Your task to perform on an android device: open app "McDonald's" Image 0: 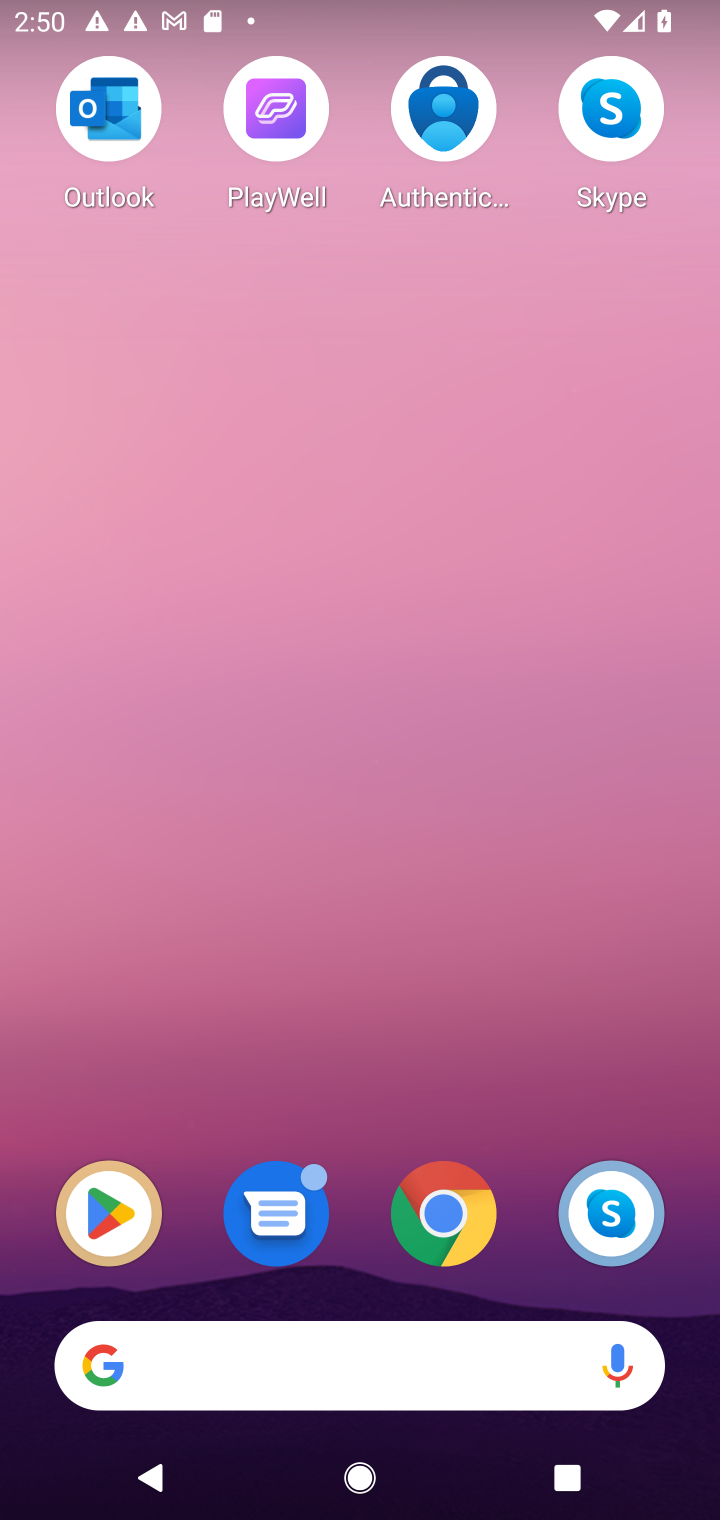
Step 0: drag from (508, 1079) to (500, 176)
Your task to perform on an android device: open app "McDonald's" Image 1: 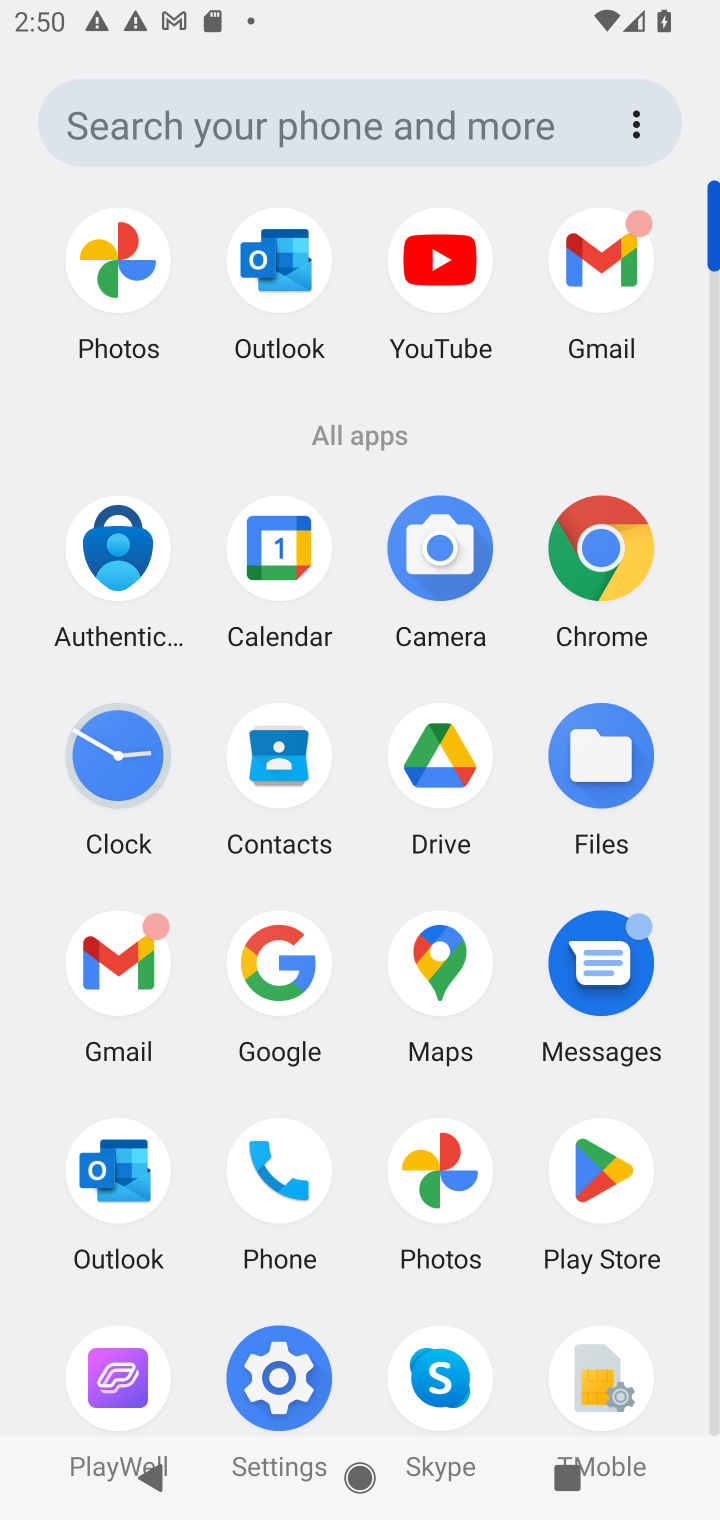
Step 1: click (594, 1156)
Your task to perform on an android device: open app "McDonald's" Image 2: 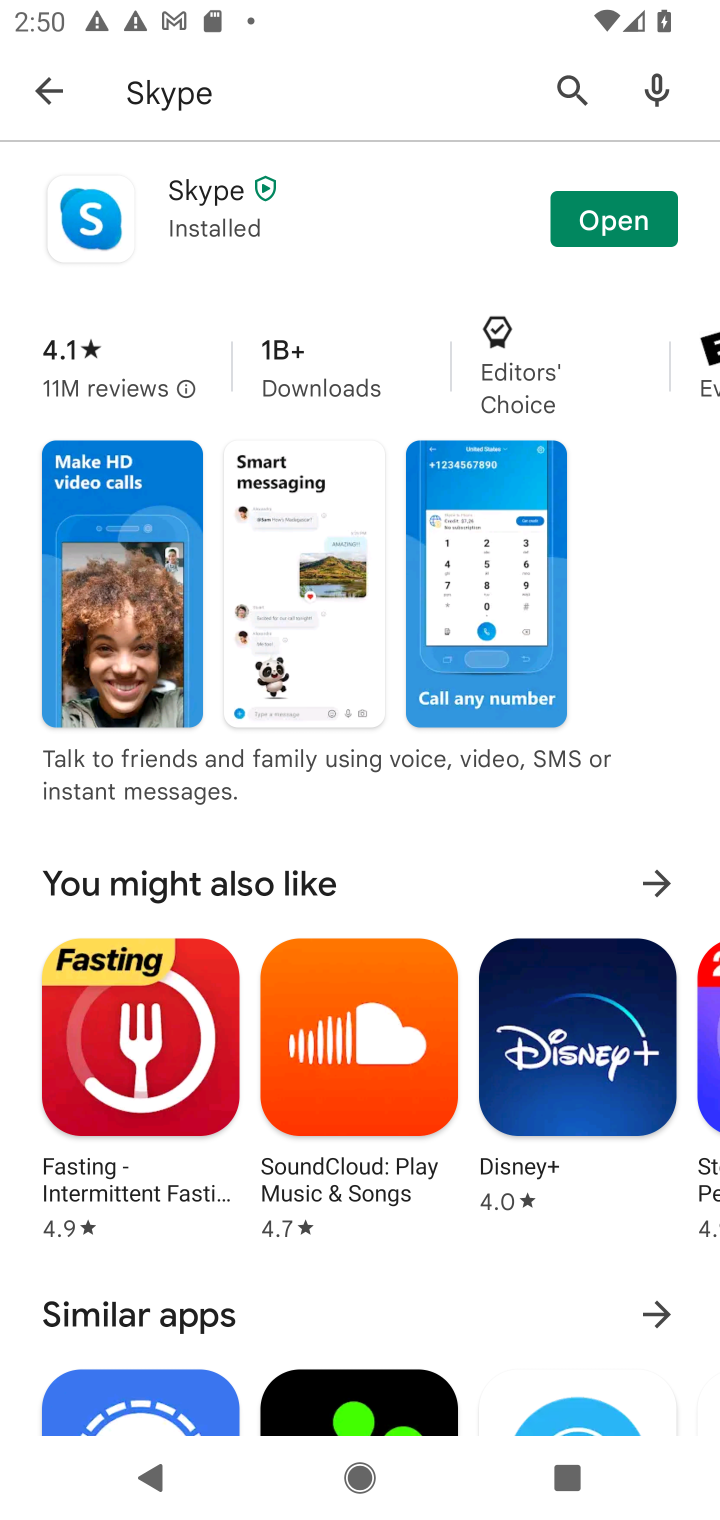
Step 2: click (503, 95)
Your task to perform on an android device: open app "McDonald's" Image 3: 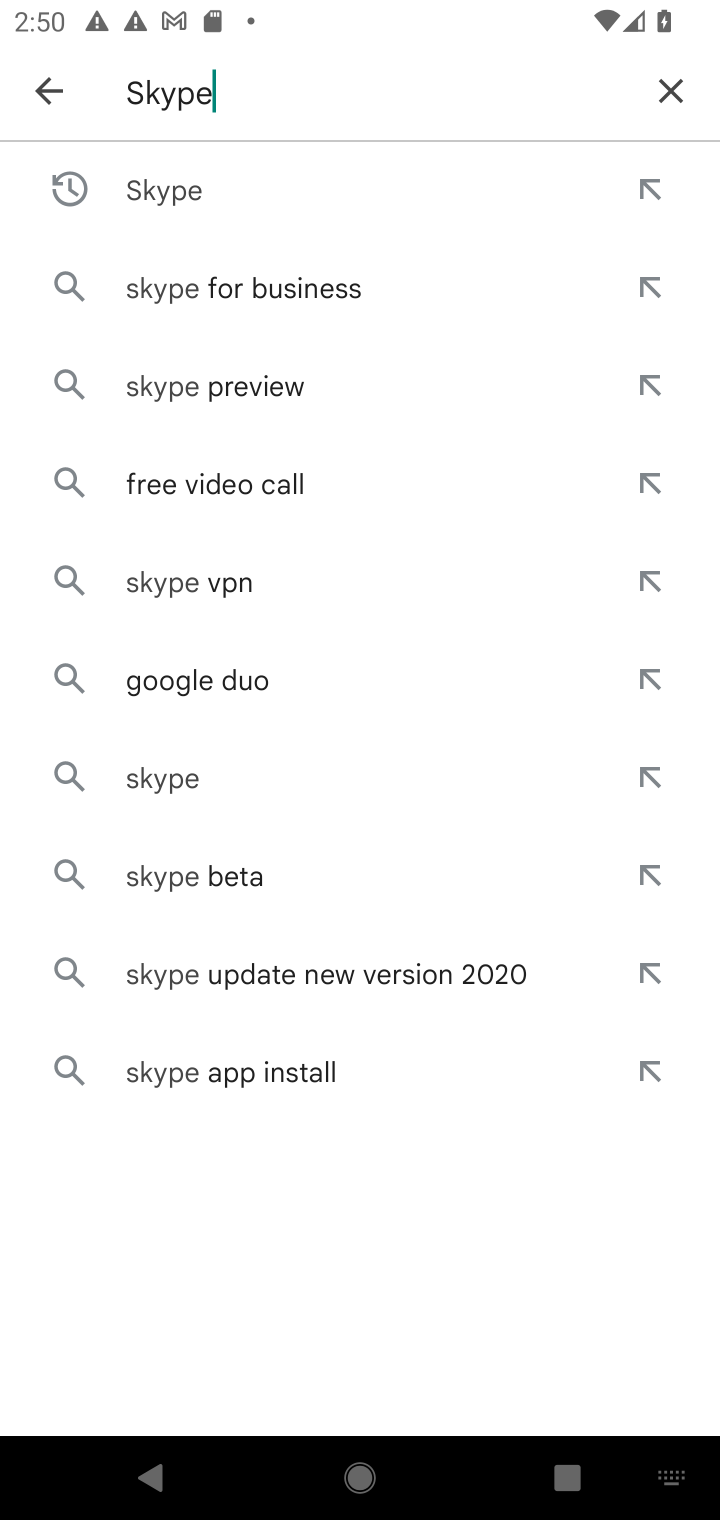
Step 3: click (719, 97)
Your task to perform on an android device: open app "McDonald's" Image 4: 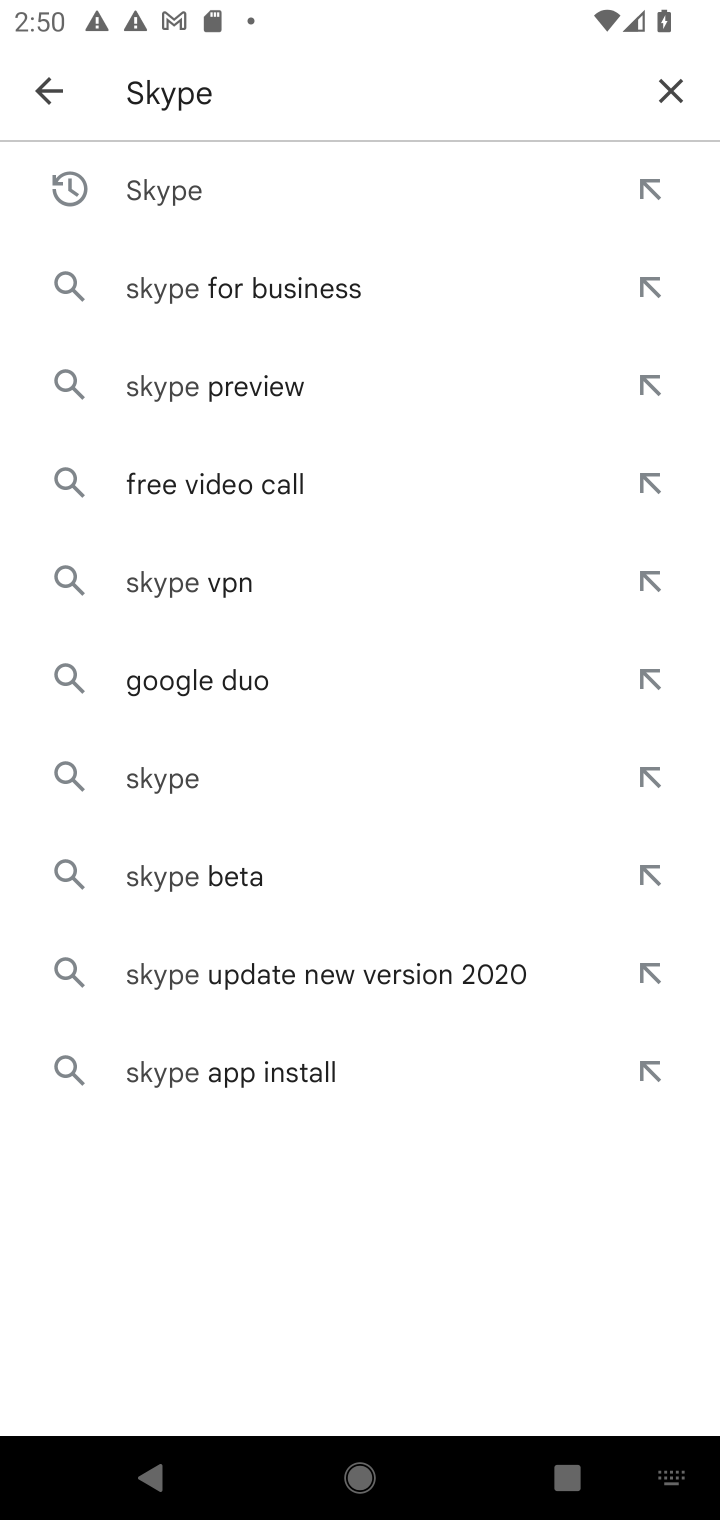
Step 4: click (686, 95)
Your task to perform on an android device: open app "McDonald's" Image 5: 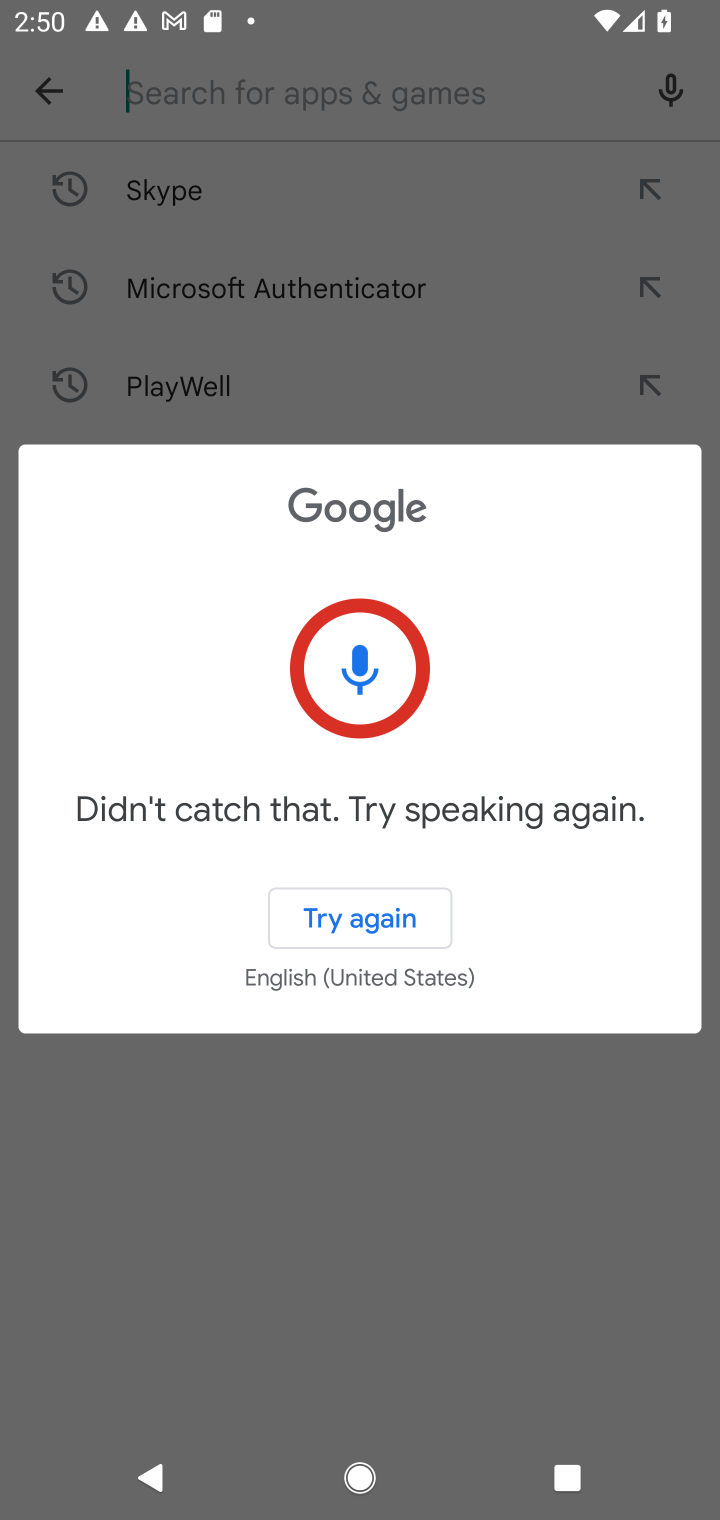
Step 5: type "McDonald;s"
Your task to perform on an android device: open app "McDonald's" Image 6: 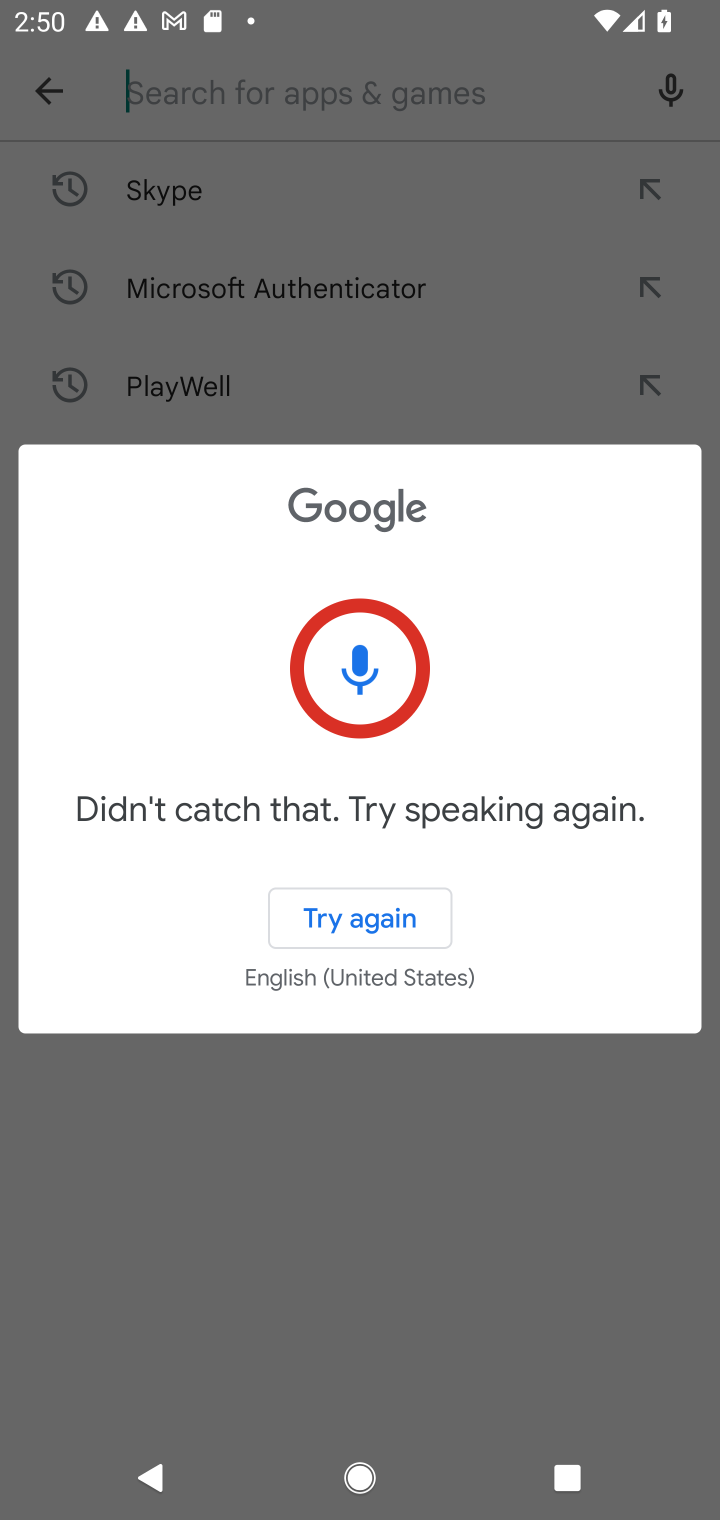
Step 6: click (569, 1240)
Your task to perform on an android device: open app "McDonald's" Image 7: 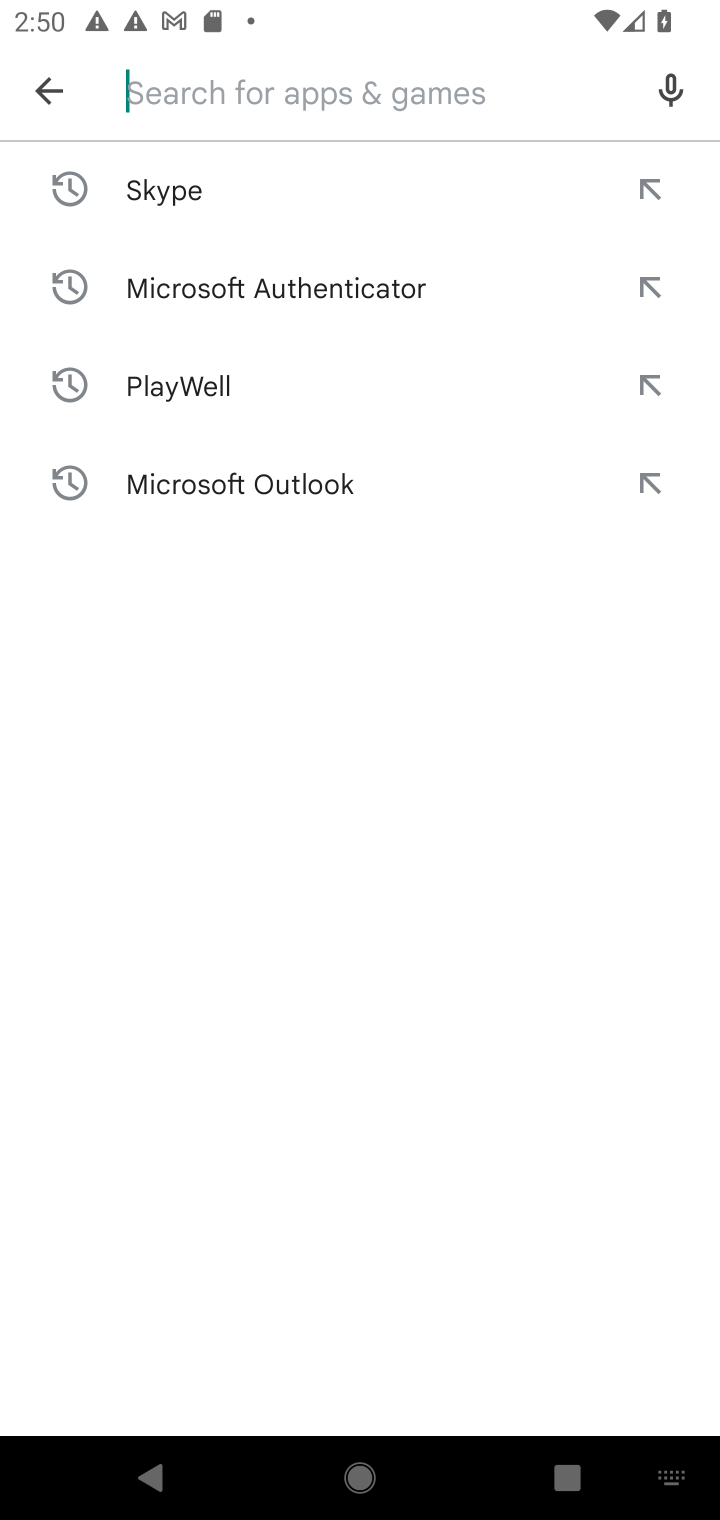
Step 7: type "McDonald's"
Your task to perform on an android device: open app "McDonald's" Image 8: 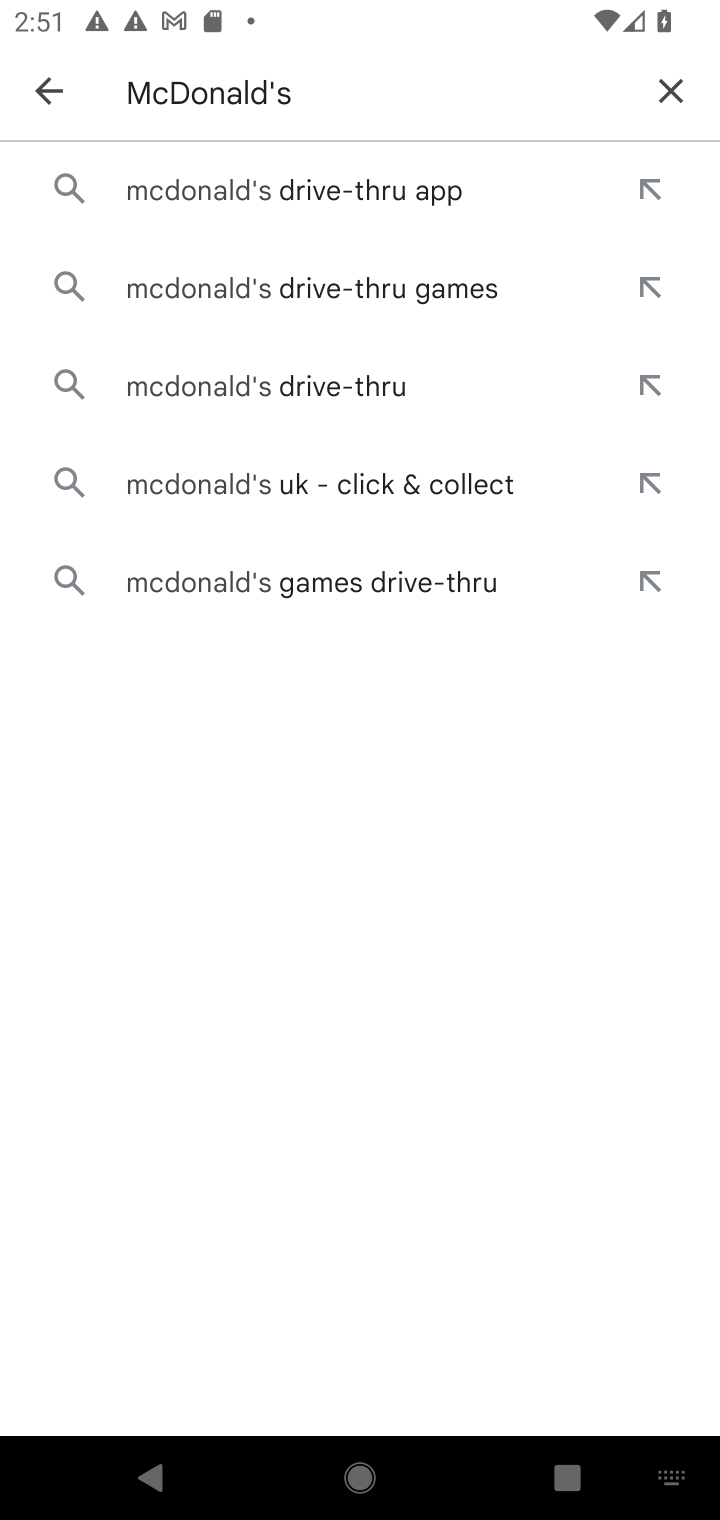
Step 8: press enter
Your task to perform on an android device: open app "McDonald's" Image 9: 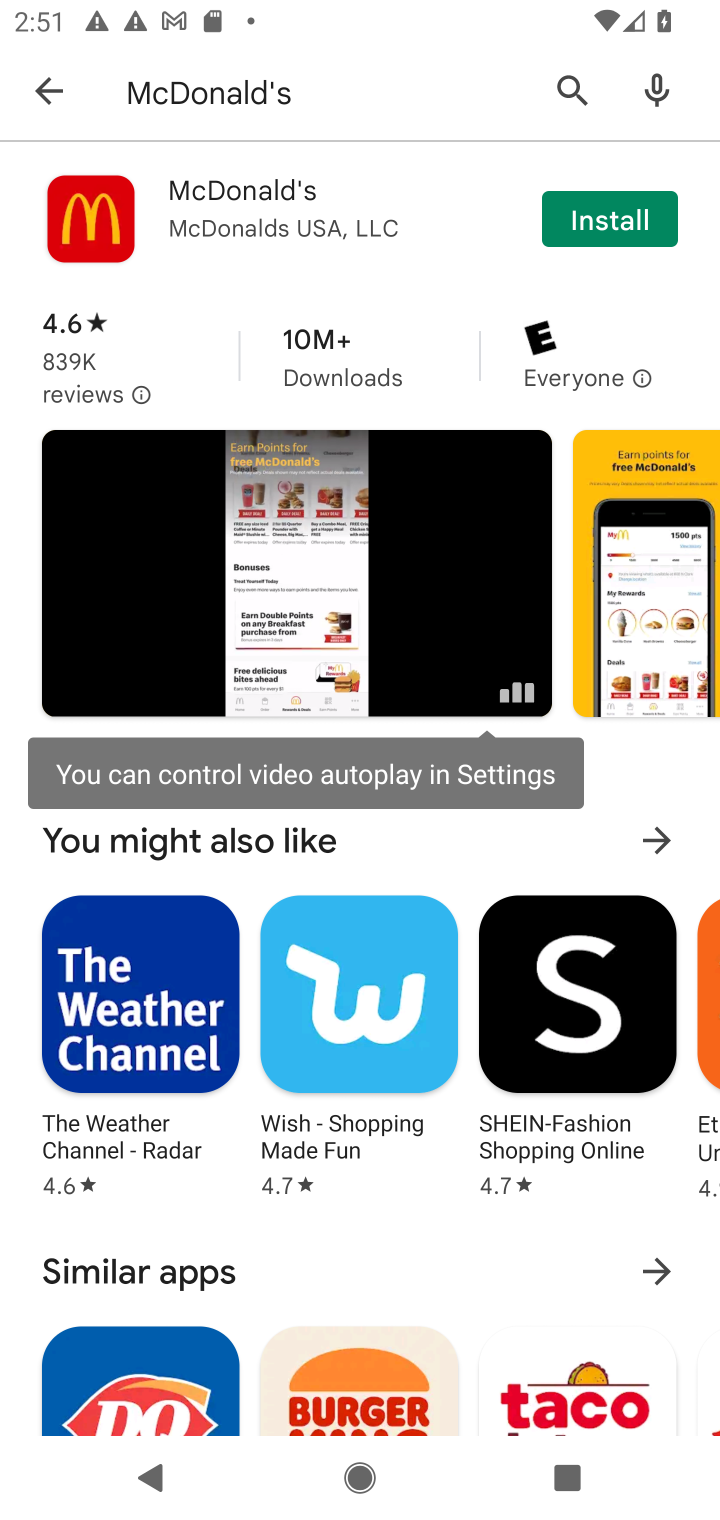
Step 9: task complete